Your task to perform on an android device: move a message to another label in the gmail app Image 0: 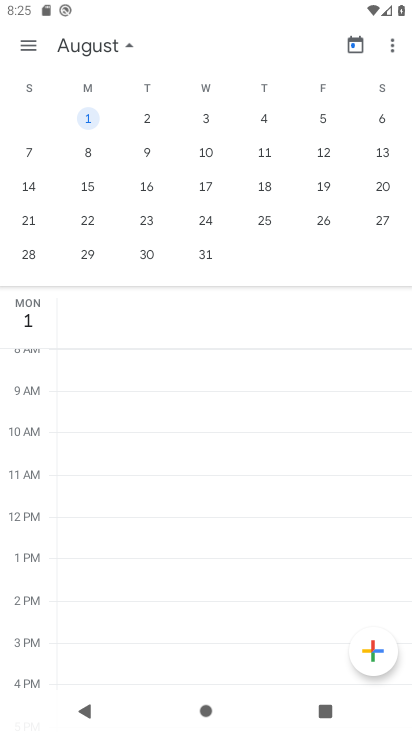
Step 0: press home button
Your task to perform on an android device: move a message to another label in the gmail app Image 1: 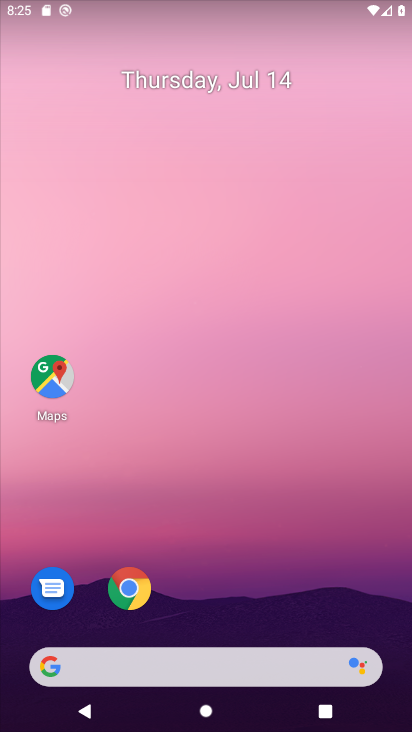
Step 1: drag from (339, 568) to (408, 358)
Your task to perform on an android device: move a message to another label in the gmail app Image 2: 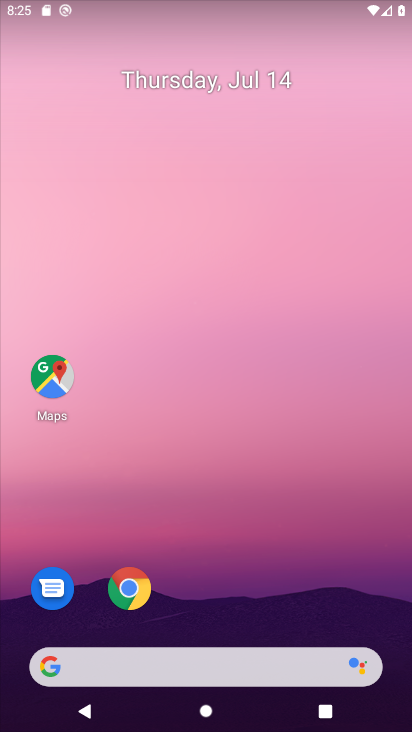
Step 2: drag from (325, 598) to (338, 10)
Your task to perform on an android device: move a message to another label in the gmail app Image 3: 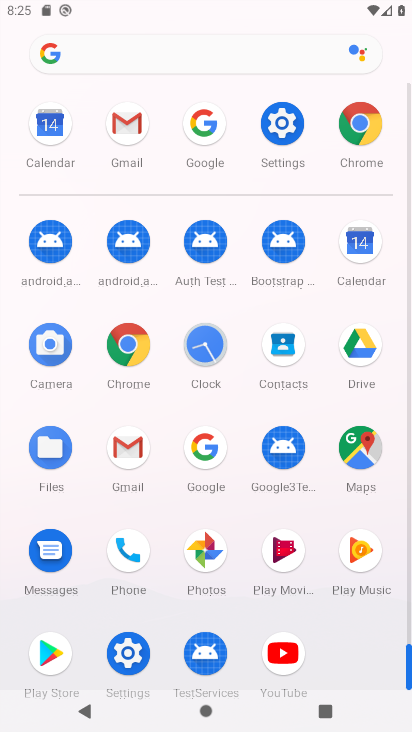
Step 3: click (126, 136)
Your task to perform on an android device: move a message to another label in the gmail app Image 4: 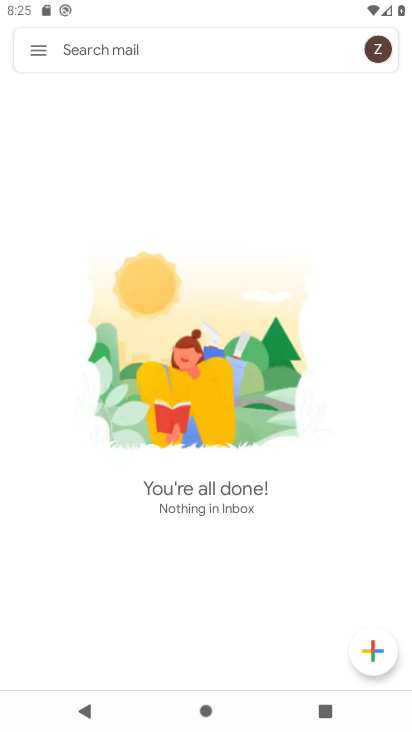
Step 4: click (39, 52)
Your task to perform on an android device: move a message to another label in the gmail app Image 5: 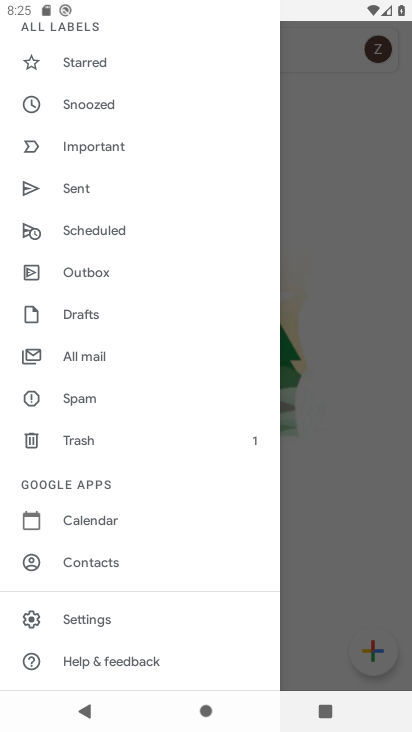
Step 5: click (112, 362)
Your task to perform on an android device: move a message to another label in the gmail app Image 6: 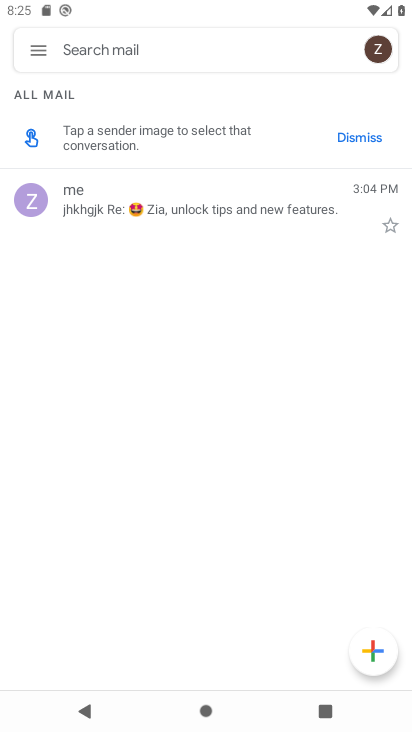
Step 6: click (216, 200)
Your task to perform on an android device: move a message to another label in the gmail app Image 7: 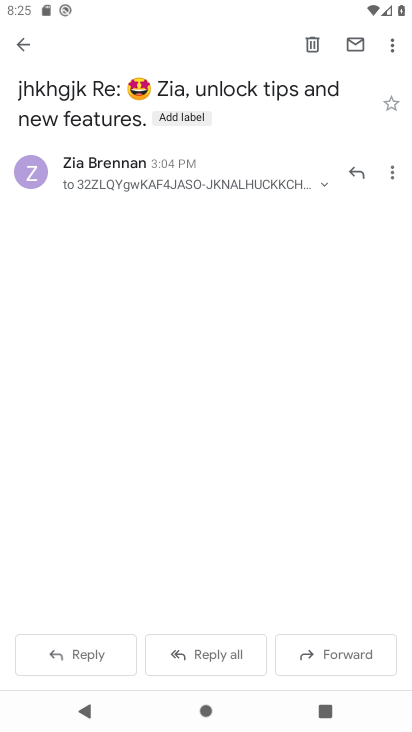
Step 7: click (188, 116)
Your task to perform on an android device: move a message to another label in the gmail app Image 8: 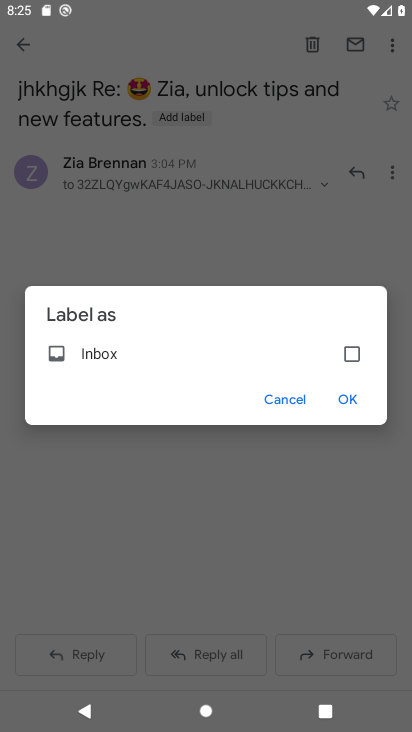
Step 8: click (356, 349)
Your task to perform on an android device: move a message to another label in the gmail app Image 9: 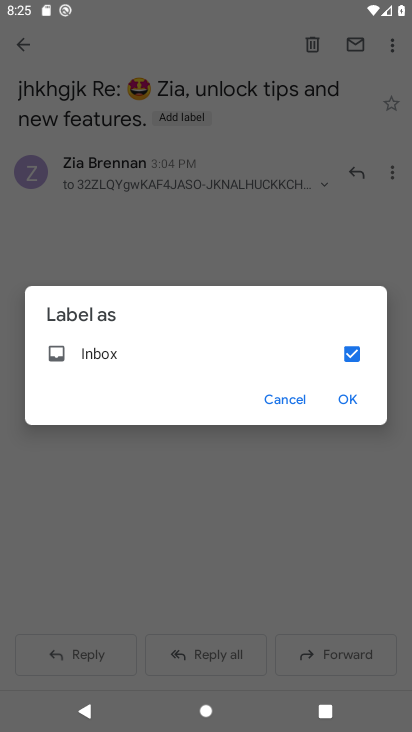
Step 9: click (350, 404)
Your task to perform on an android device: move a message to another label in the gmail app Image 10: 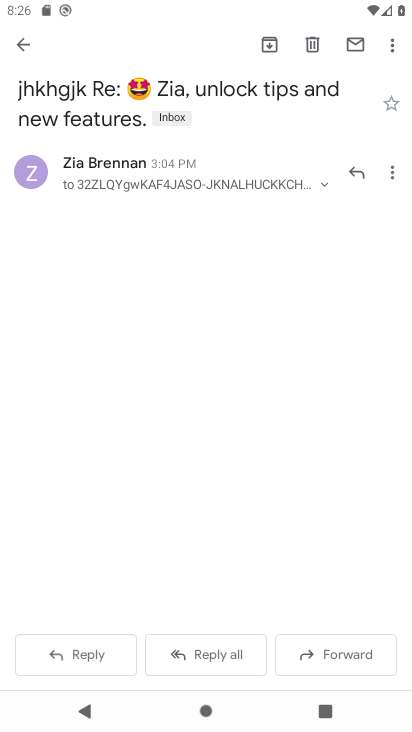
Step 10: task complete